Your task to perform on an android device: Check the news Image 0: 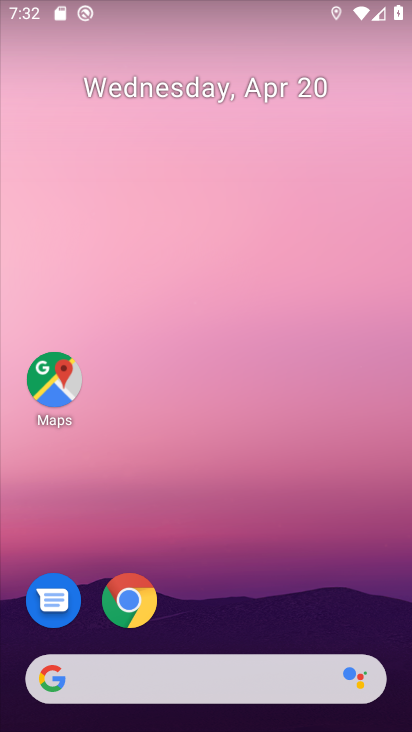
Step 0: drag from (226, 591) to (232, 46)
Your task to perform on an android device: Check the news Image 1: 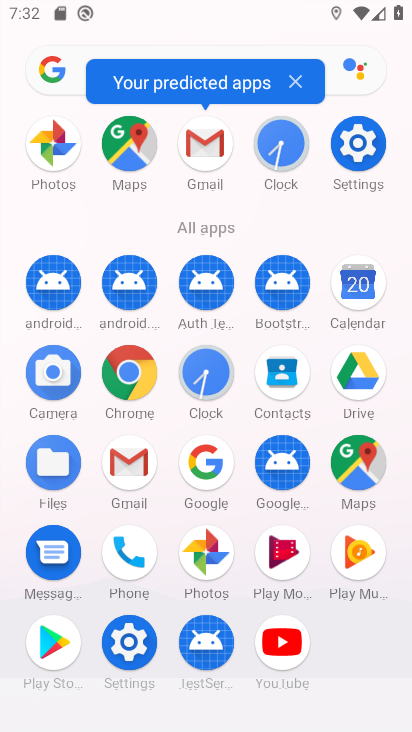
Step 1: click (212, 469)
Your task to perform on an android device: Check the news Image 2: 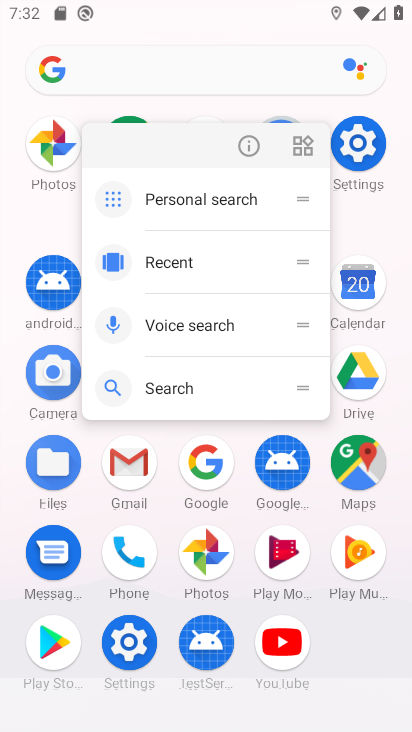
Step 2: click (205, 479)
Your task to perform on an android device: Check the news Image 3: 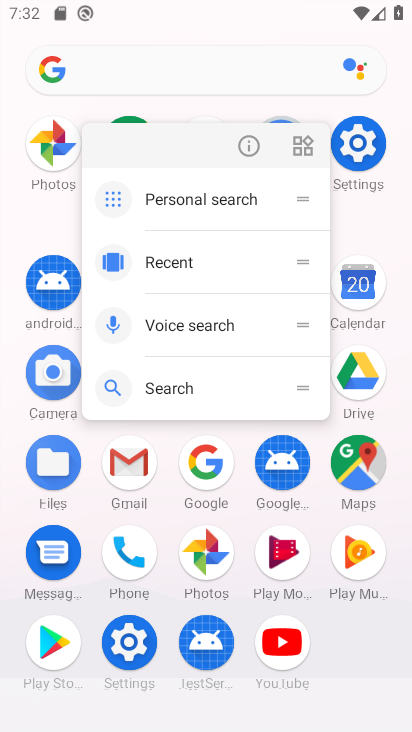
Step 3: click (205, 480)
Your task to perform on an android device: Check the news Image 4: 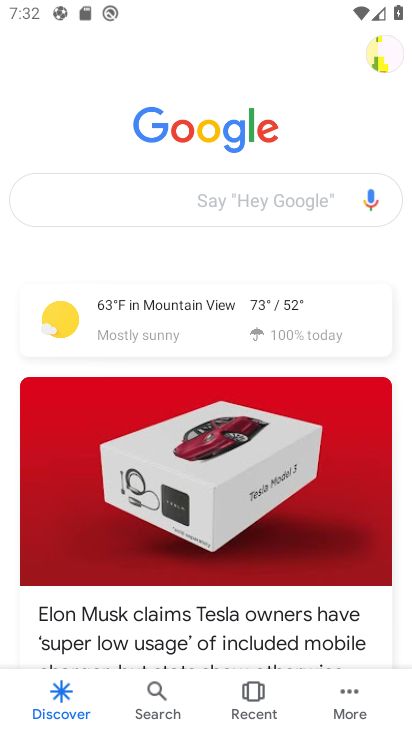
Step 4: task complete